Your task to perform on an android device: Go to ESPN.com Image 0: 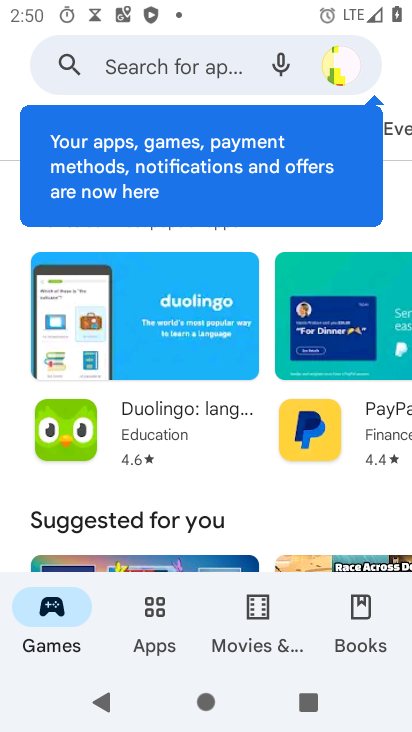
Step 0: press back button
Your task to perform on an android device: Go to ESPN.com Image 1: 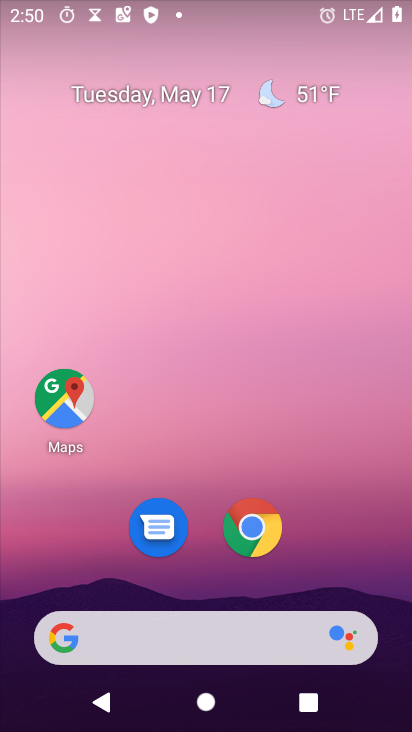
Step 1: click (251, 527)
Your task to perform on an android device: Go to ESPN.com Image 2: 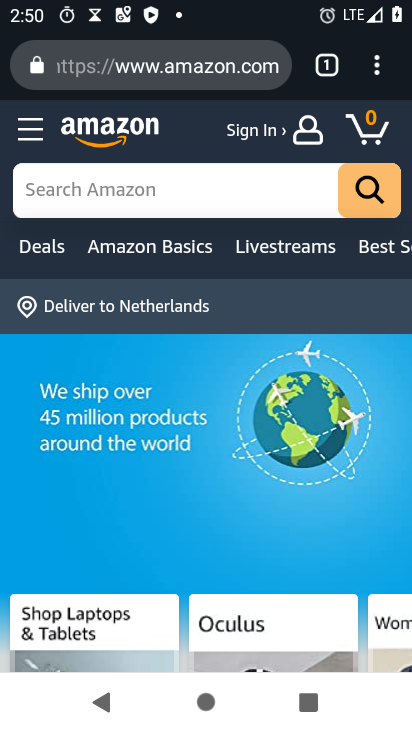
Step 2: click (254, 62)
Your task to perform on an android device: Go to ESPN.com Image 3: 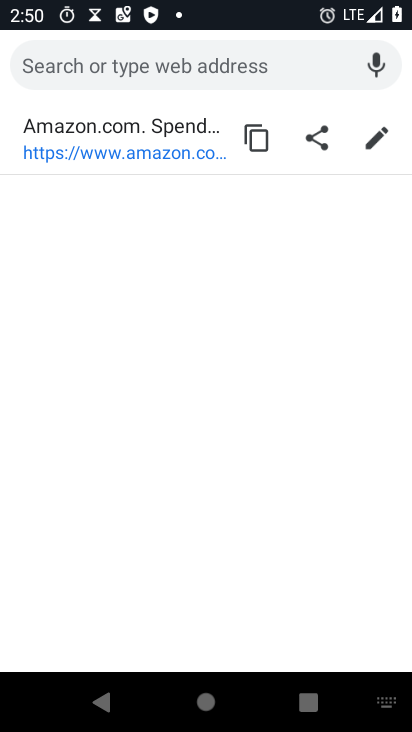
Step 3: type "ESPN.com"
Your task to perform on an android device: Go to ESPN.com Image 4: 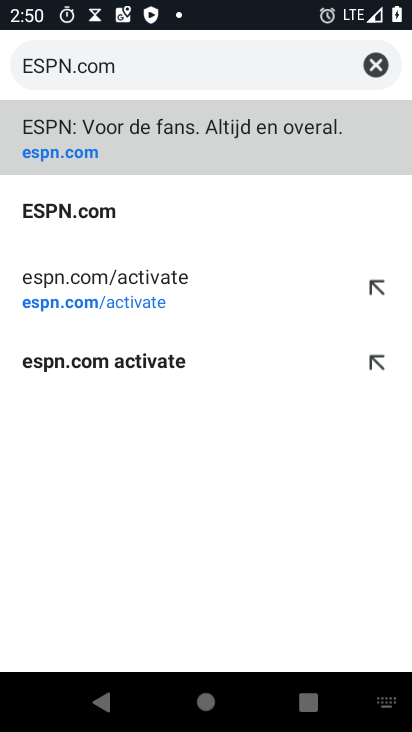
Step 4: click (90, 213)
Your task to perform on an android device: Go to ESPN.com Image 5: 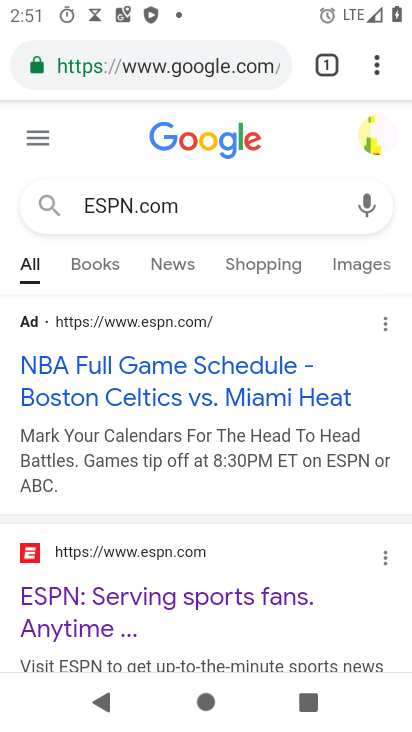
Step 5: click (109, 601)
Your task to perform on an android device: Go to ESPN.com Image 6: 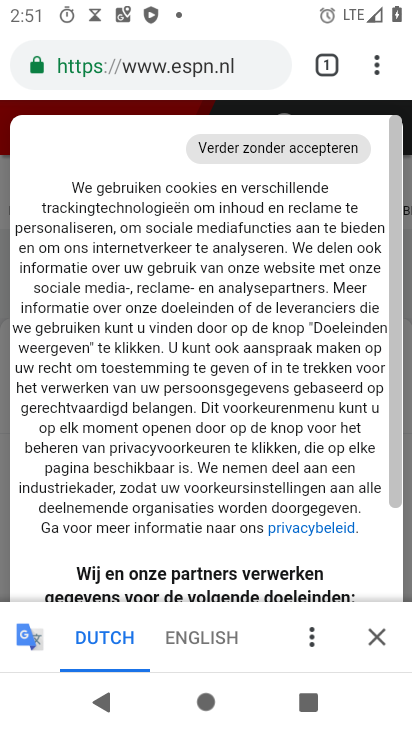
Step 6: task complete